Your task to perform on an android device: toggle priority inbox in the gmail app Image 0: 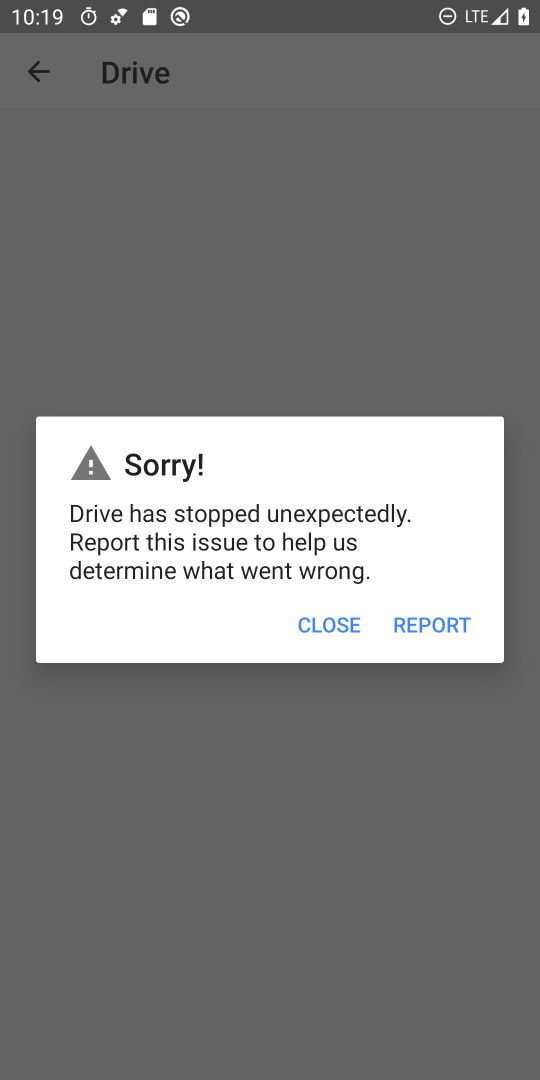
Step 0: press home button
Your task to perform on an android device: toggle priority inbox in the gmail app Image 1: 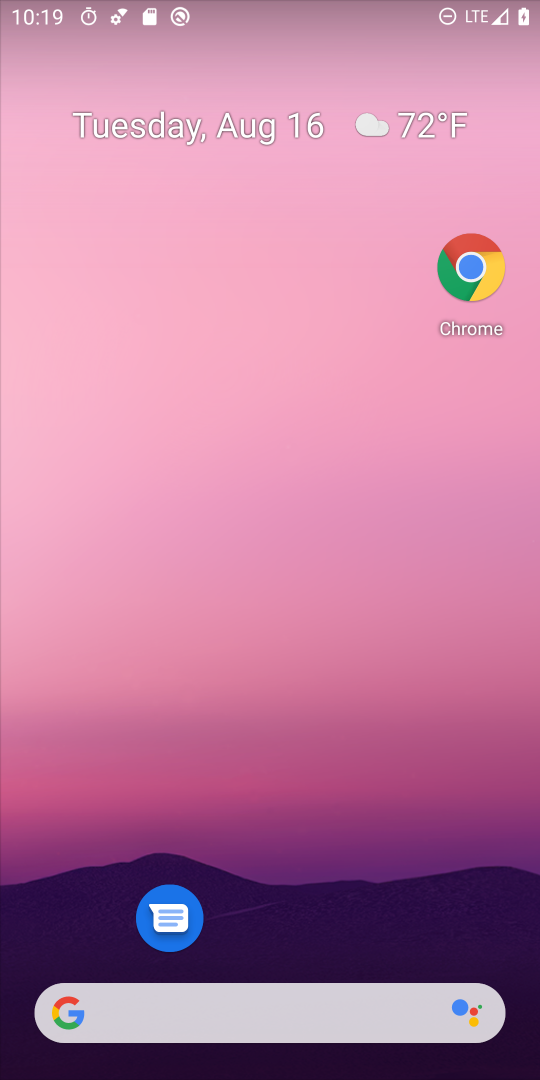
Step 1: drag from (386, 949) to (332, 416)
Your task to perform on an android device: toggle priority inbox in the gmail app Image 2: 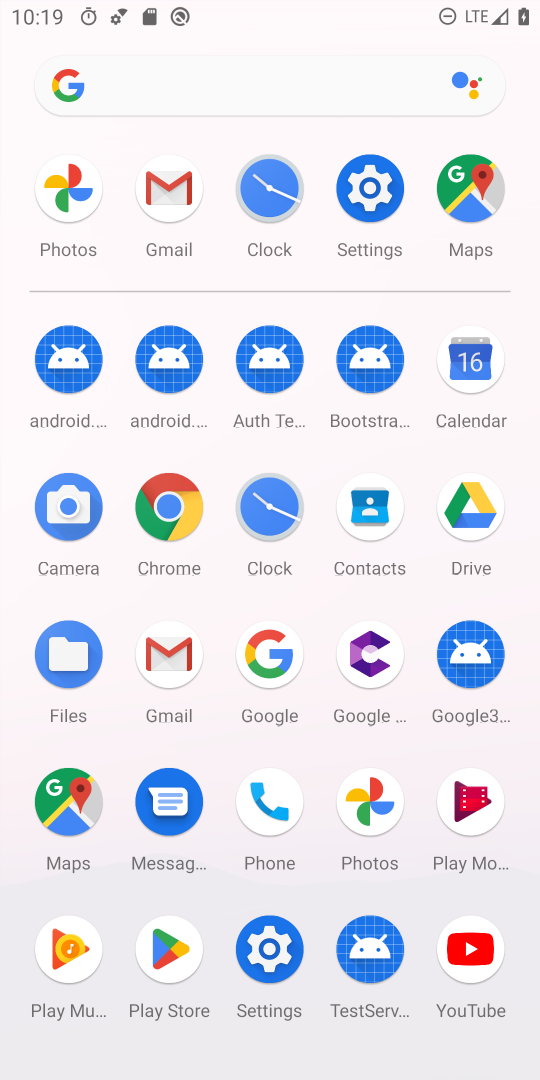
Step 2: click (143, 699)
Your task to perform on an android device: toggle priority inbox in the gmail app Image 3: 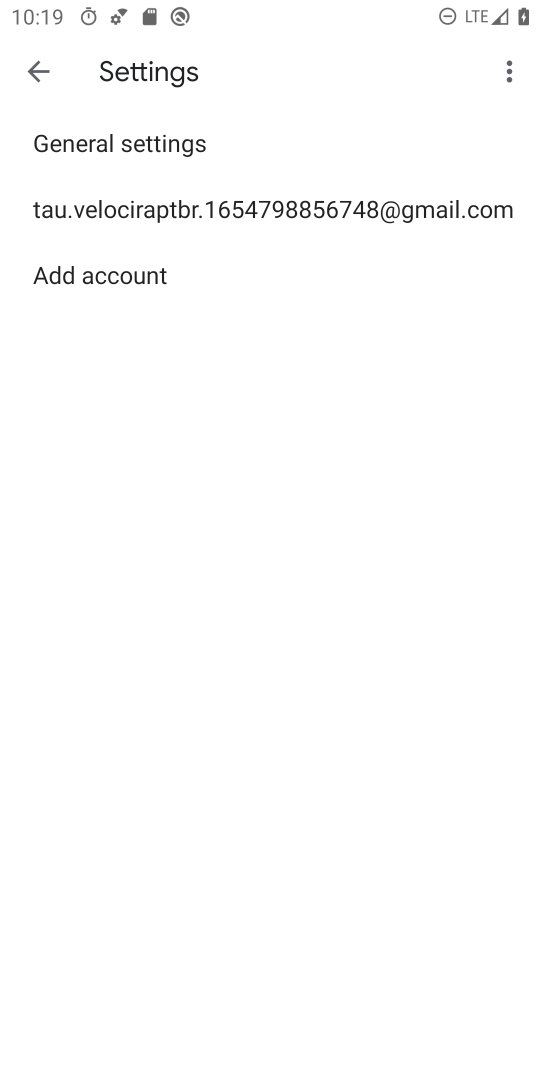
Step 3: click (236, 220)
Your task to perform on an android device: toggle priority inbox in the gmail app Image 4: 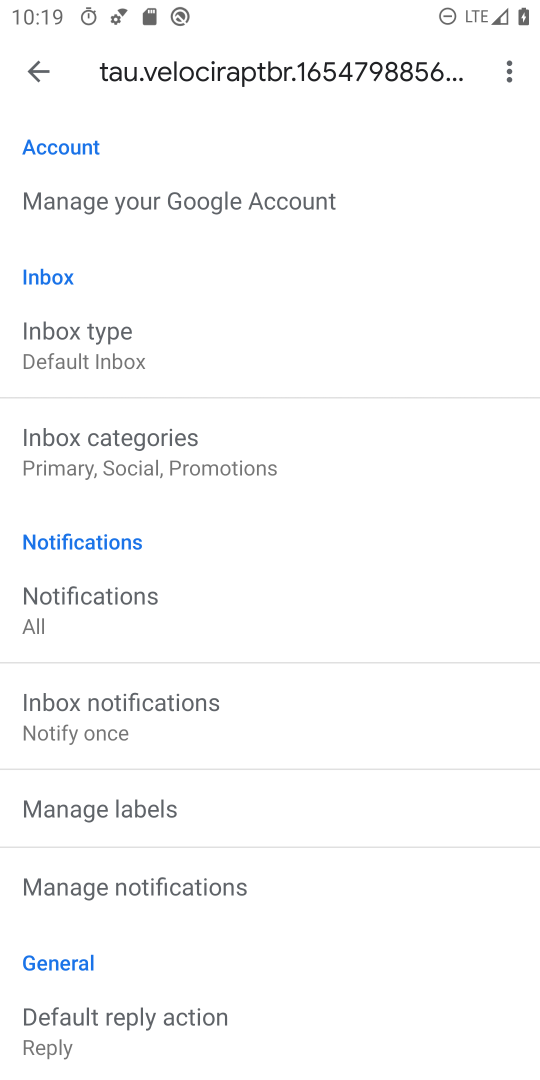
Step 4: click (105, 332)
Your task to perform on an android device: toggle priority inbox in the gmail app Image 5: 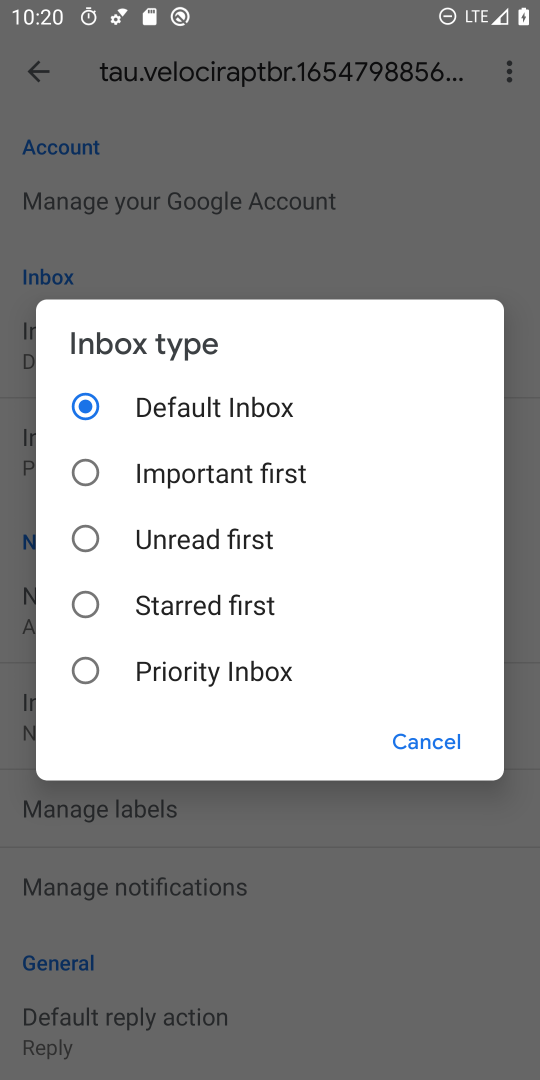
Step 5: click (106, 666)
Your task to perform on an android device: toggle priority inbox in the gmail app Image 6: 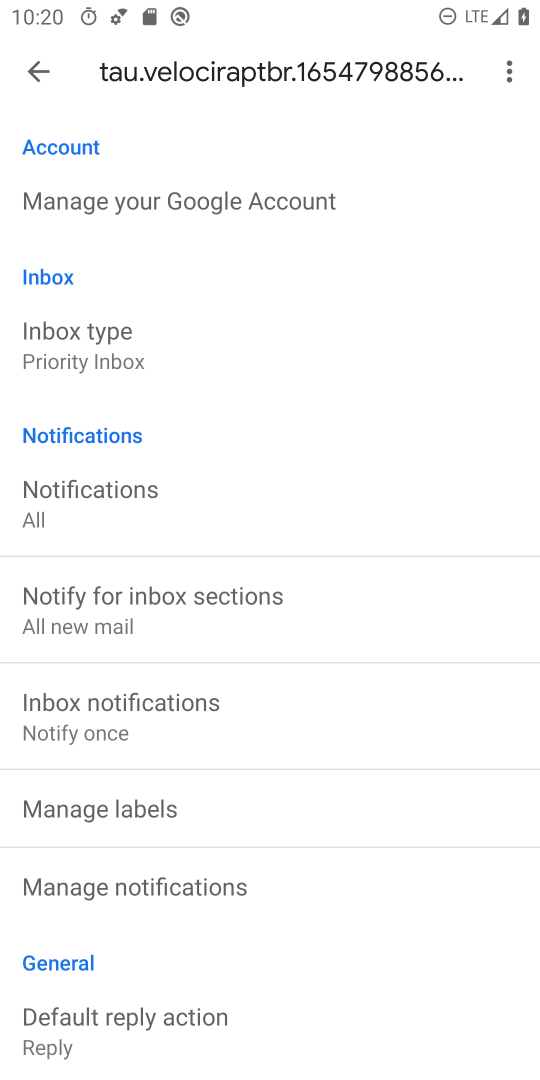
Step 6: task complete